Your task to perform on an android device: Open my contact list Image 0: 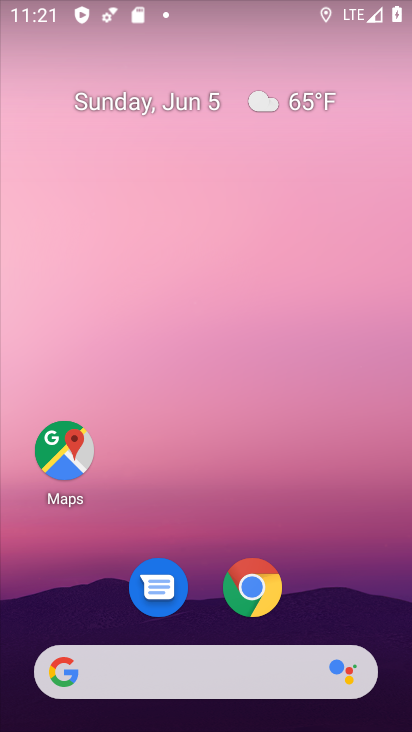
Step 0: drag from (191, 623) to (218, 254)
Your task to perform on an android device: Open my contact list Image 1: 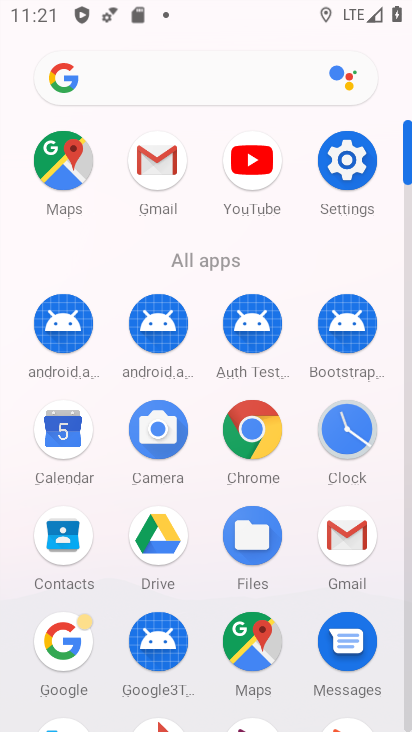
Step 1: click (54, 534)
Your task to perform on an android device: Open my contact list Image 2: 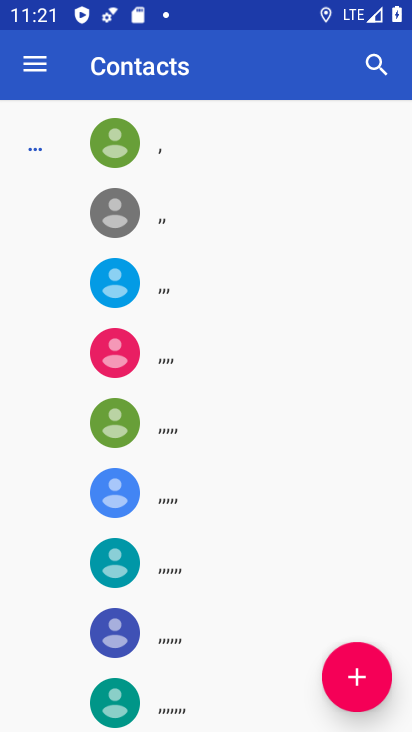
Step 2: task complete